Your task to perform on an android device: Open the web browser Image 0: 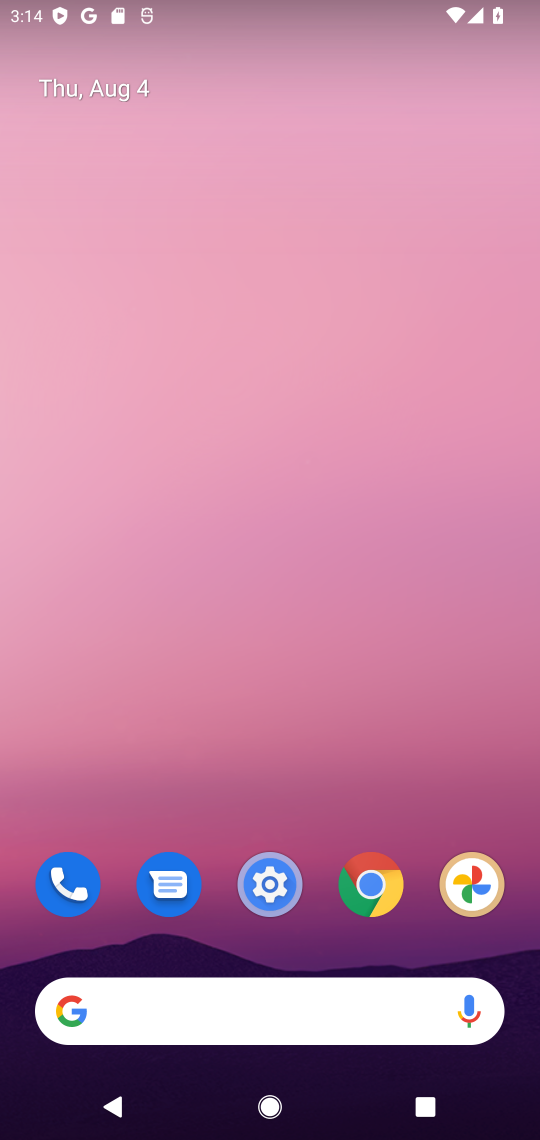
Step 0: drag from (221, 882) to (234, 393)
Your task to perform on an android device: Open the web browser Image 1: 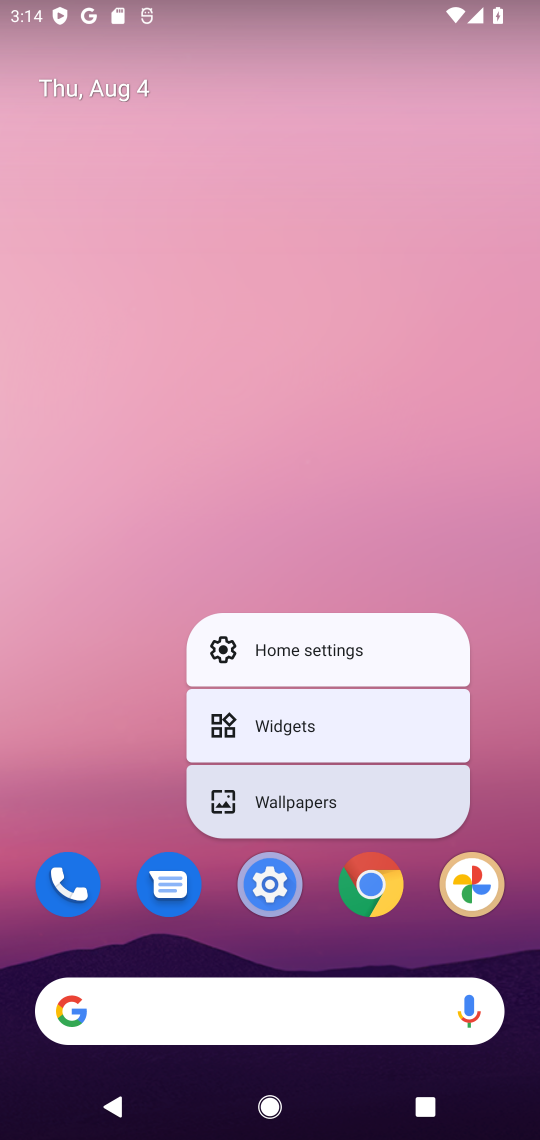
Step 1: click (264, 646)
Your task to perform on an android device: Open the web browser Image 2: 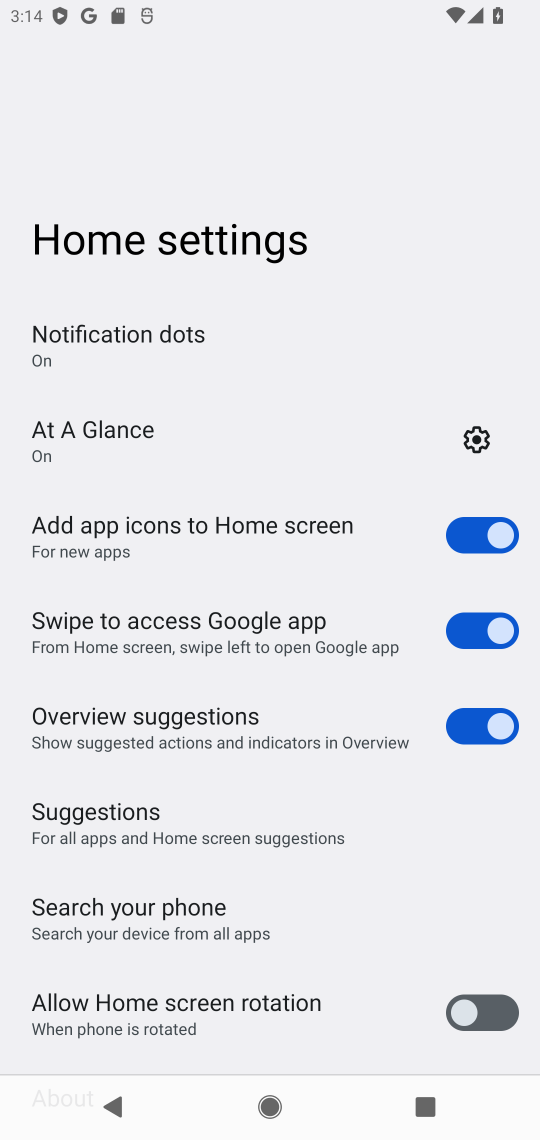
Step 2: drag from (220, 885) to (233, 444)
Your task to perform on an android device: Open the web browser Image 3: 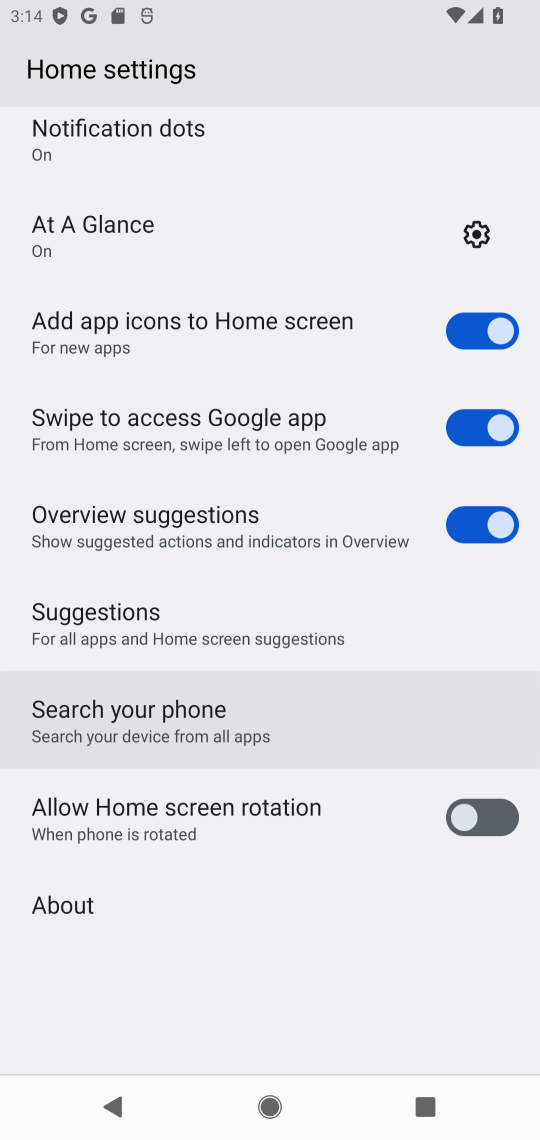
Step 3: drag from (254, 367) to (533, 803)
Your task to perform on an android device: Open the web browser Image 4: 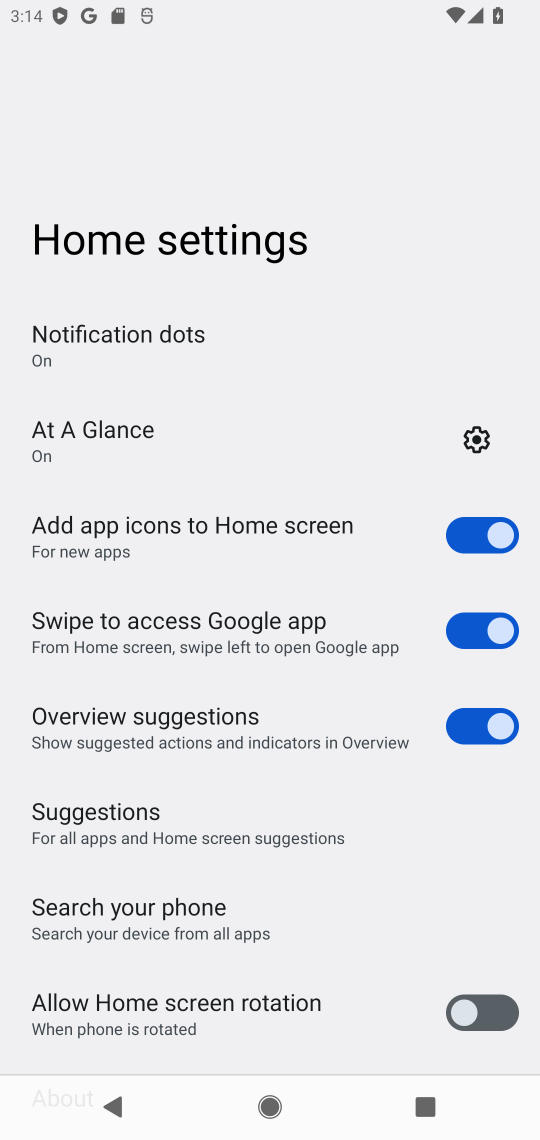
Step 4: drag from (243, 892) to (352, 386)
Your task to perform on an android device: Open the web browser Image 5: 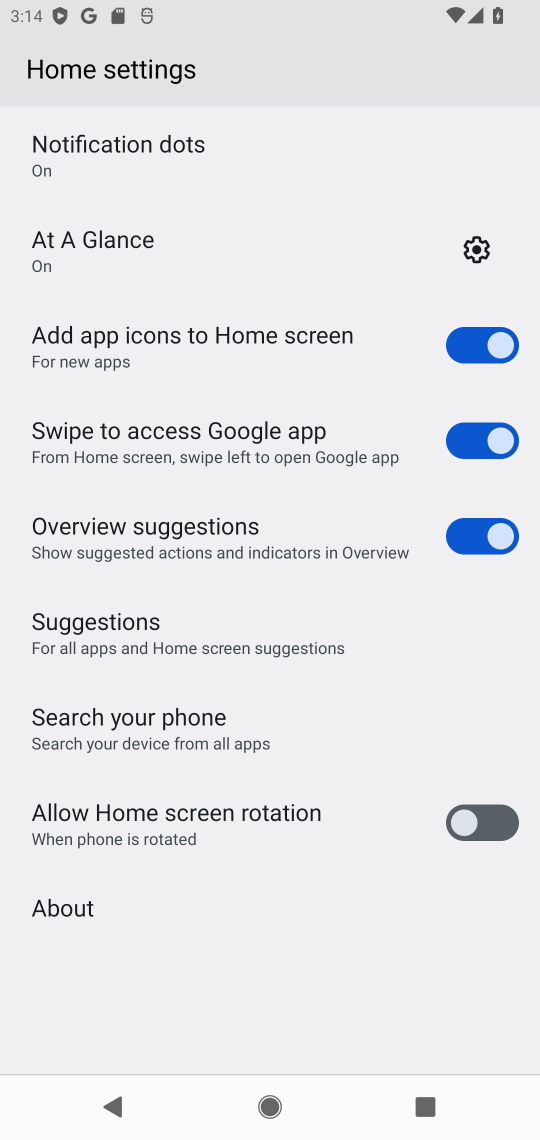
Step 5: drag from (271, 247) to (284, 1136)
Your task to perform on an android device: Open the web browser Image 6: 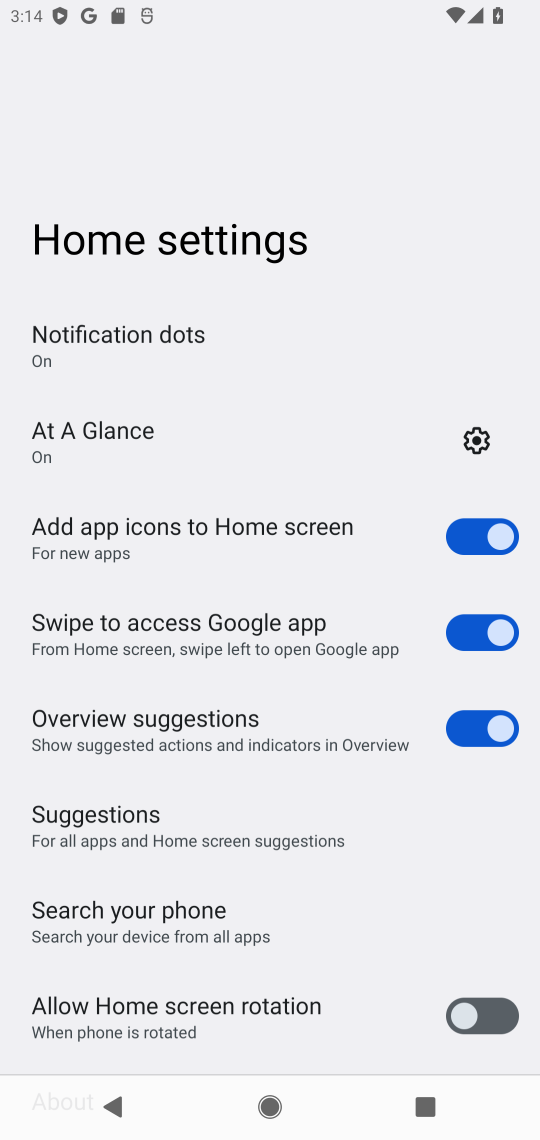
Step 6: drag from (213, 1025) to (186, 481)
Your task to perform on an android device: Open the web browser Image 7: 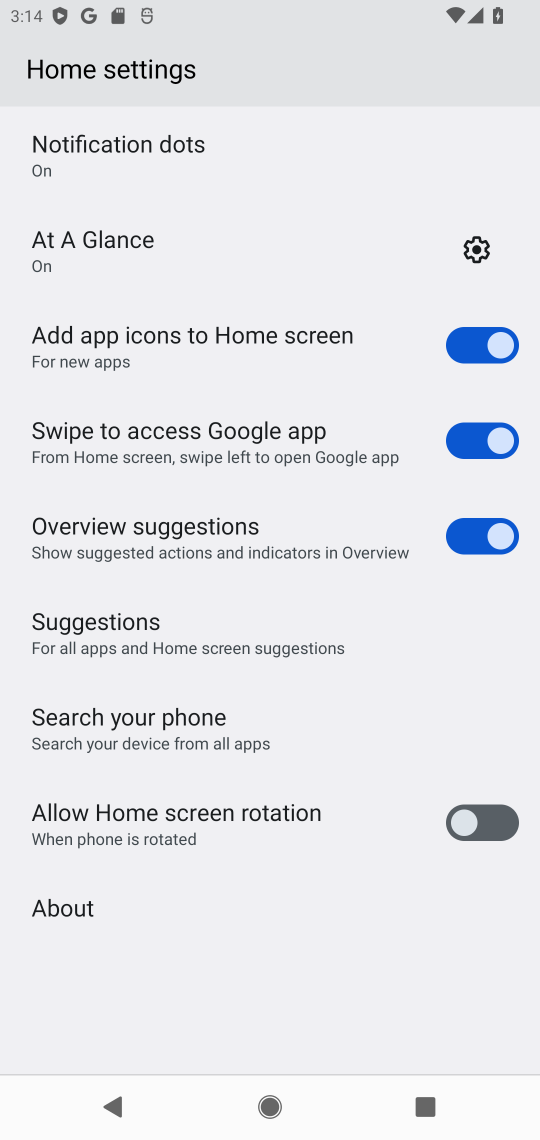
Step 7: drag from (259, 293) to (178, 1078)
Your task to perform on an android device: Open the web browser Image 8: 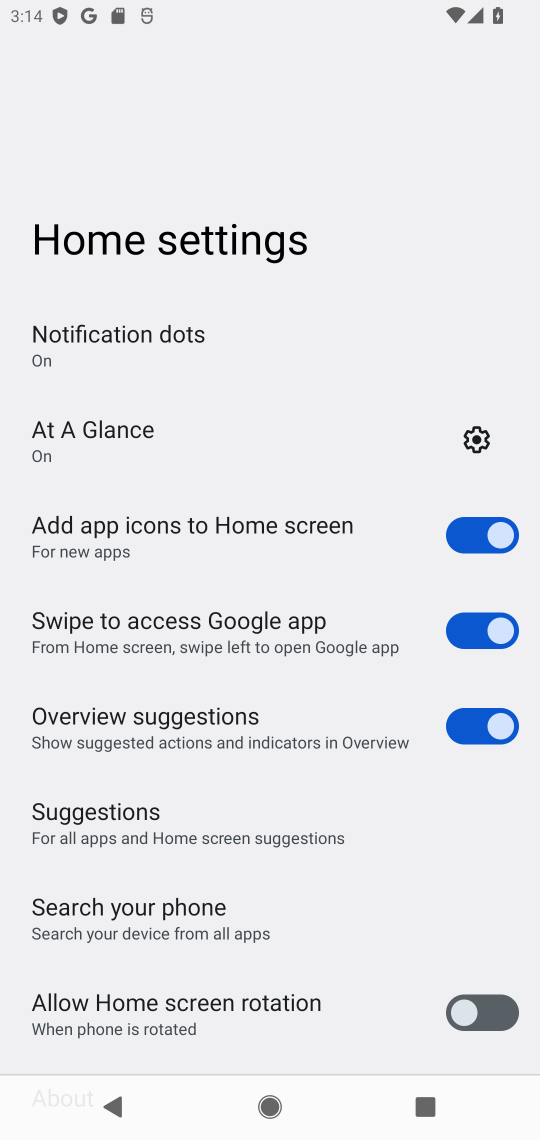
Step 8: drag from (223, 994) to (333, 606)
Your task to perform on an android device: Open the web browser Image 9: 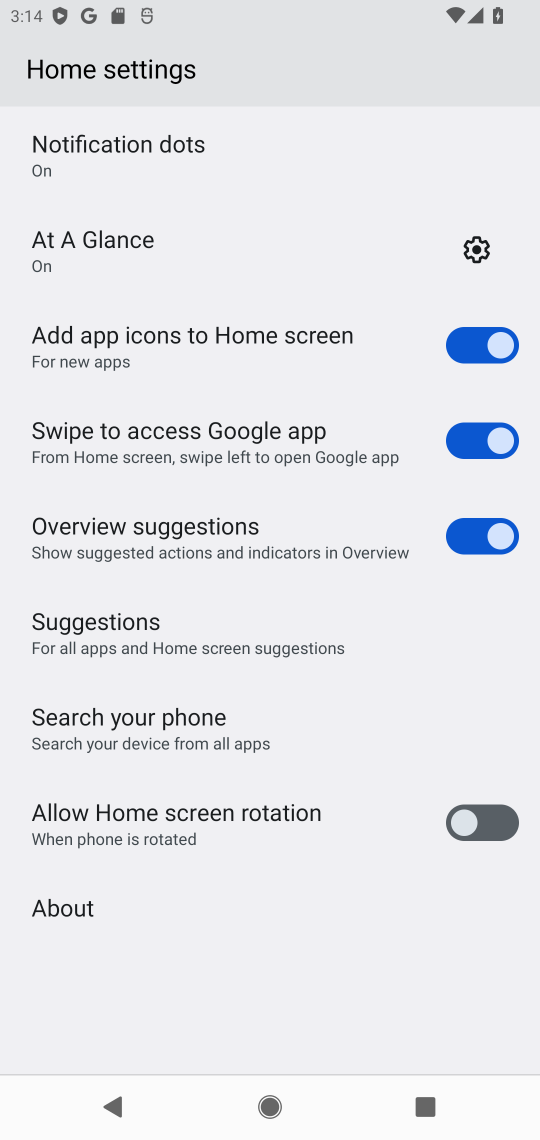
Step 9: drag from (250, 274) to (329, 1128)
Your task to perform on an android device: Open the web browser Image 10: 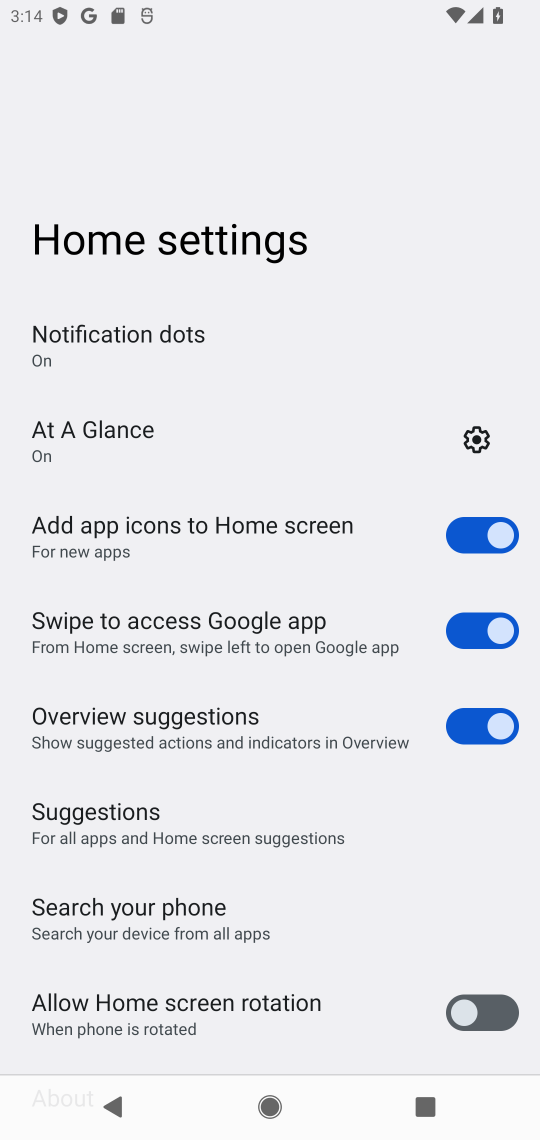
Step 10: drag from (292, 880) to (366, 410)
Your task to perform on an android device: Open the web browser Image 11: 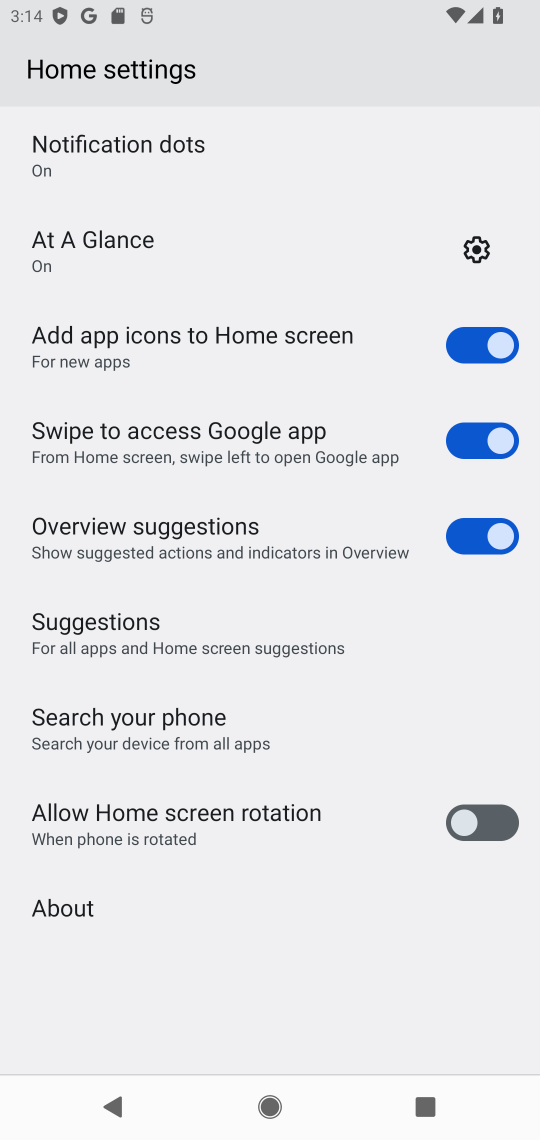
Step 11: drag from (333, 404) to (320, 1138)
Your task to perform on an android device: Open the web browser Image 12: 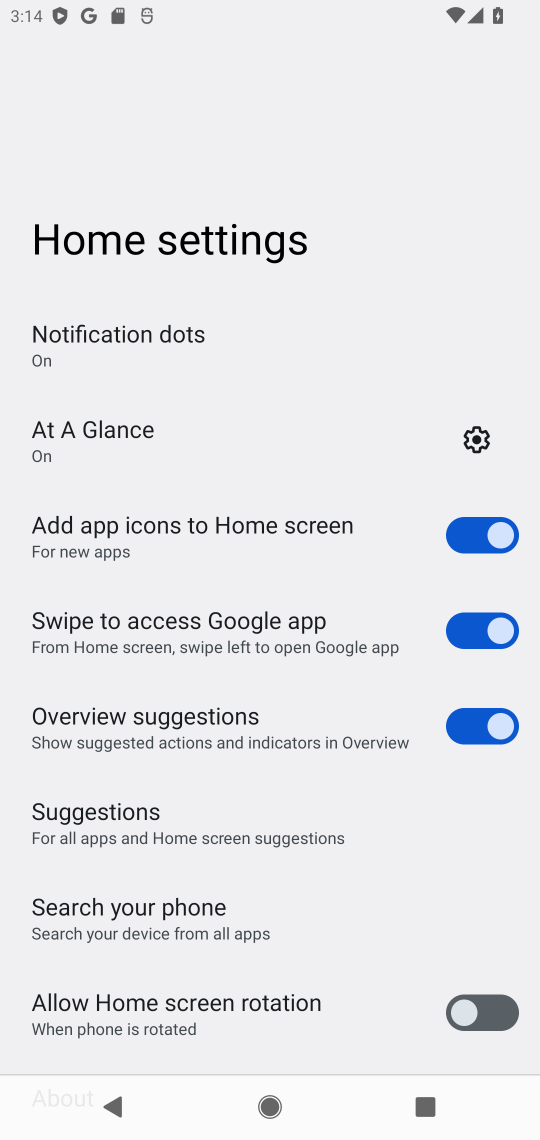
Step 12: drag from (307, 909) to (423, 560)
Your task to perform on an android device: Open the web browser Image 13: 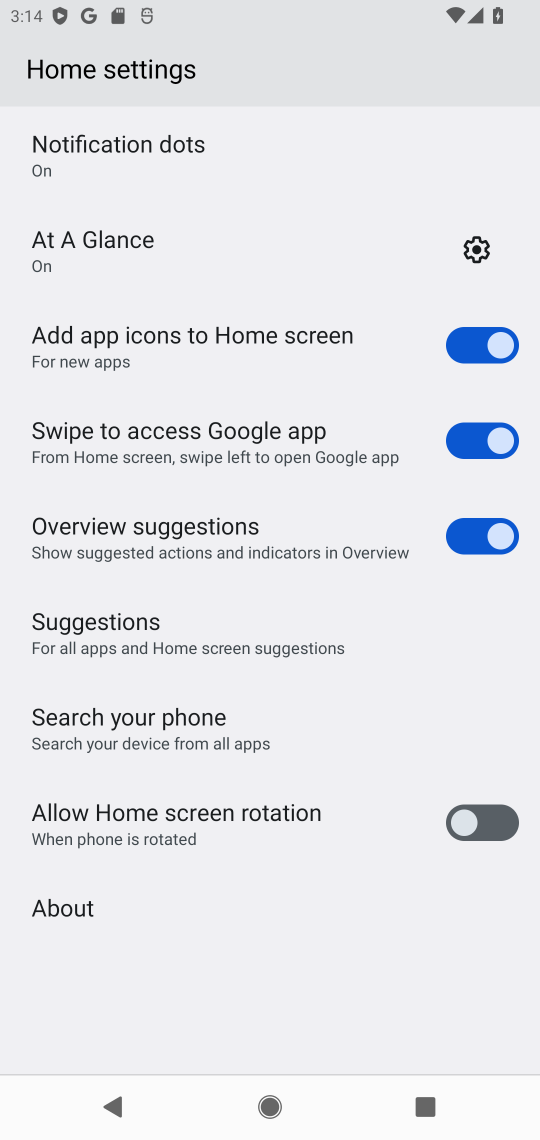
Step 13: drag from (300, 845) to (335, 325)
Your task to perform on an android device: Open the web browser Image 14: 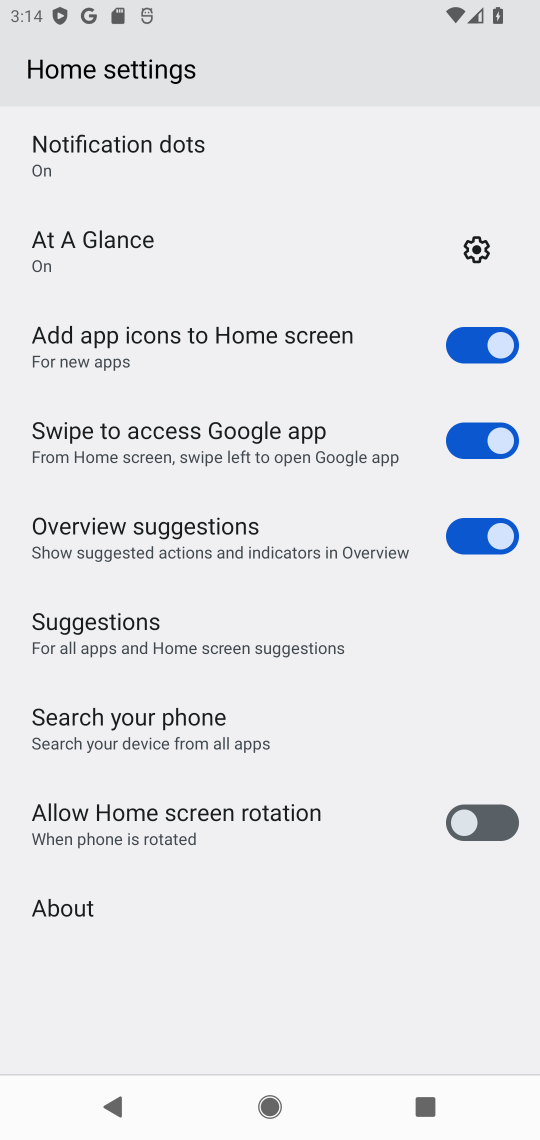
Step 14: drag from (195, 361) to (354, 1104)
Your task to perform on an android device: Open the web browser Image 15: 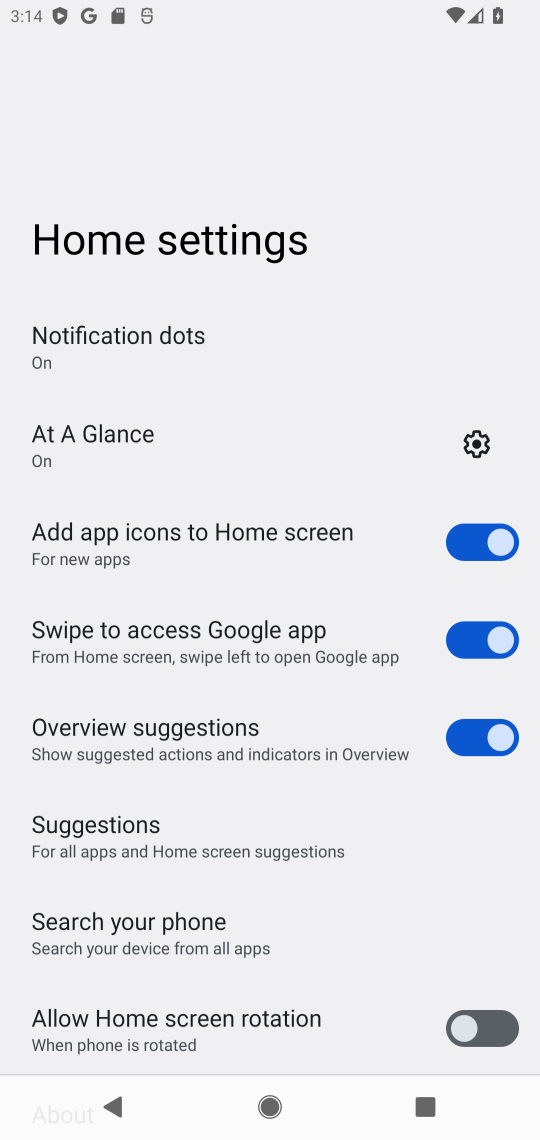
Step 15: press home button
Your task to perform on an android device: Open the web browser Image 16: 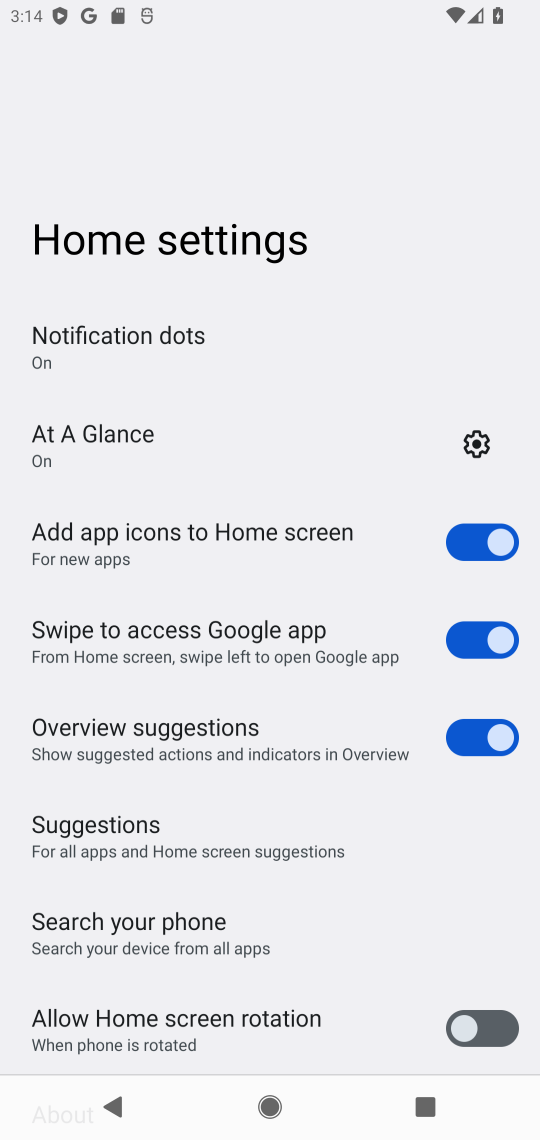
Step 16: drag from (354, 1104) to (538, 476)
Your task to perform on an android device: Open the web browser Image 17: 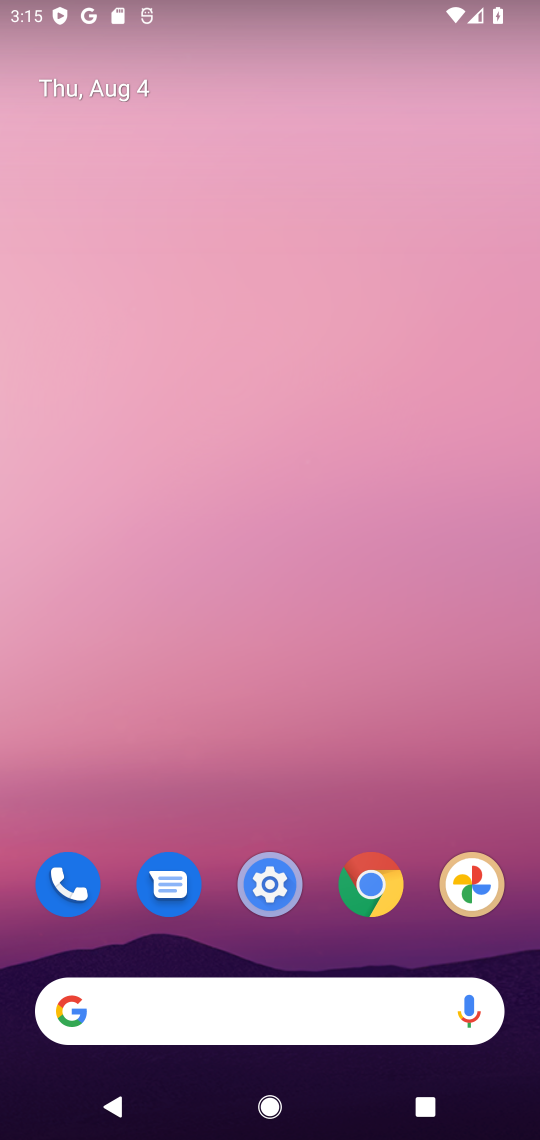
Step 17: drag from (218, 922) to (296, 441)
Your task to perform on an android device: Open the web browser Image 18: 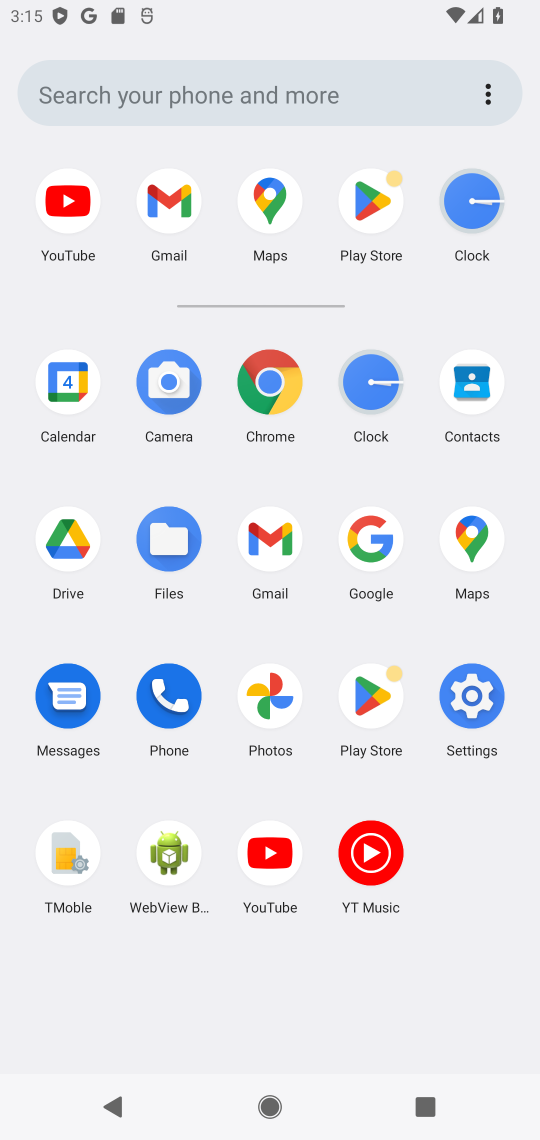
Step 18: click (228, 96)
Your task to perform on an android device: Open the web browser Image 19: 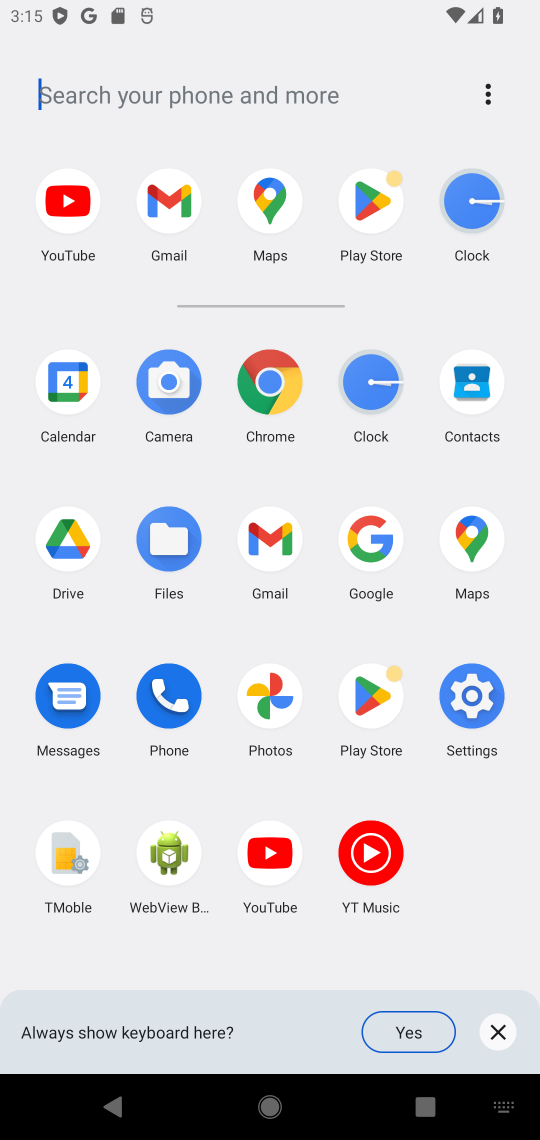
Step 19: click (88, 85)
Your task to perform on an android device: Open the web browser Image 20: 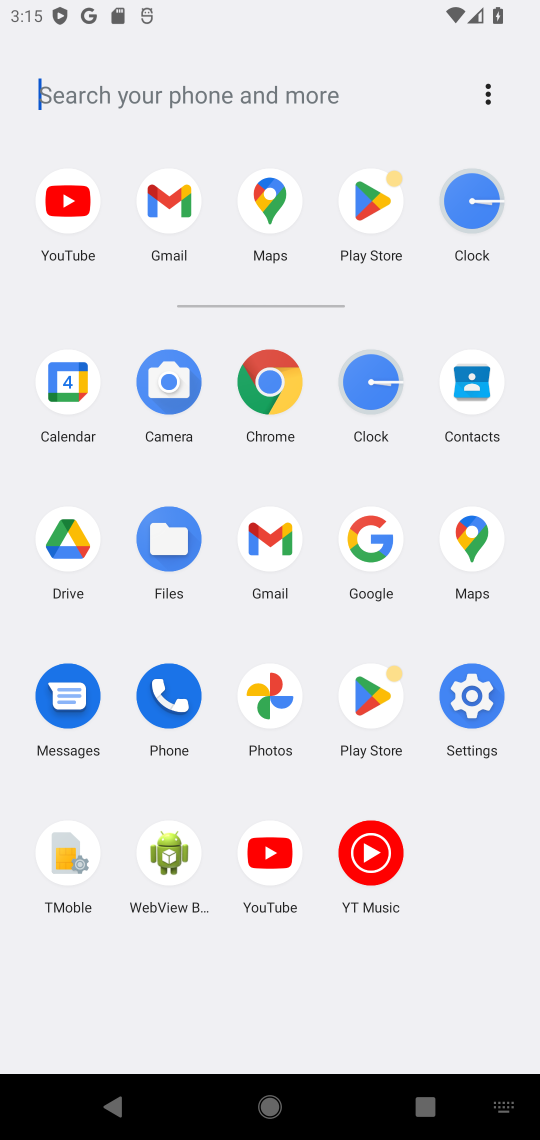
Step 20: type " web browser"
Your task to perform on an android device: Open the web browser Image 21: 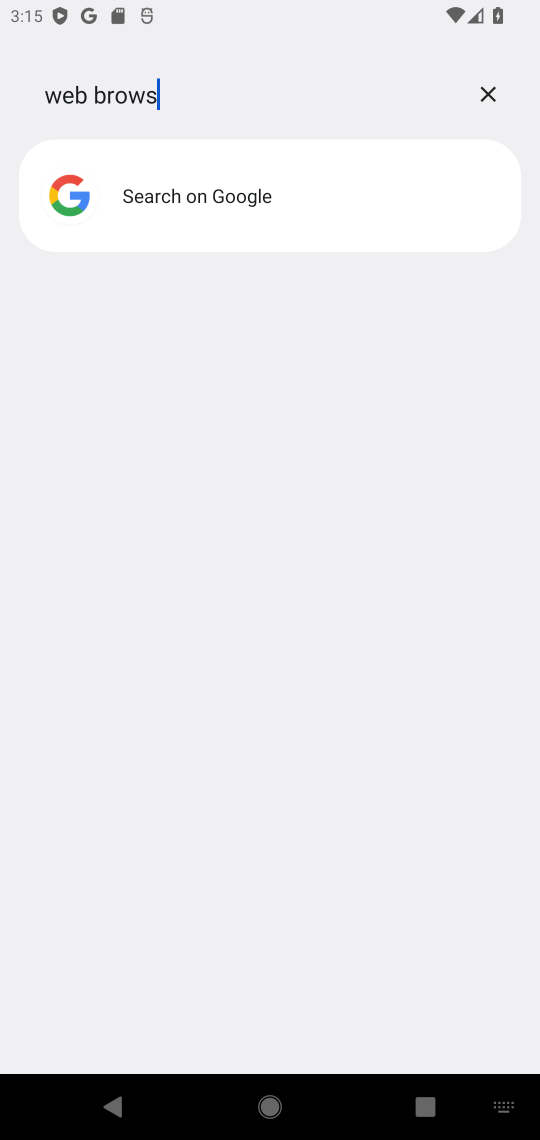
Step 21: type ""
Your task to perform on an android device: Open the web browser Image 22: 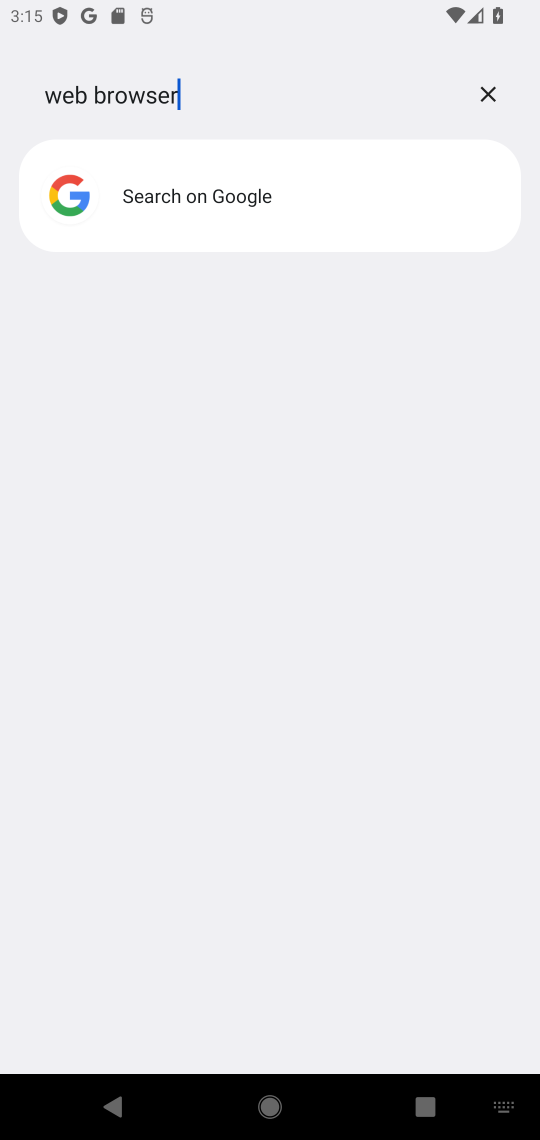
Step 22: click (183, 200)
Your task to perform on an android device: Open the web browser Image 23: 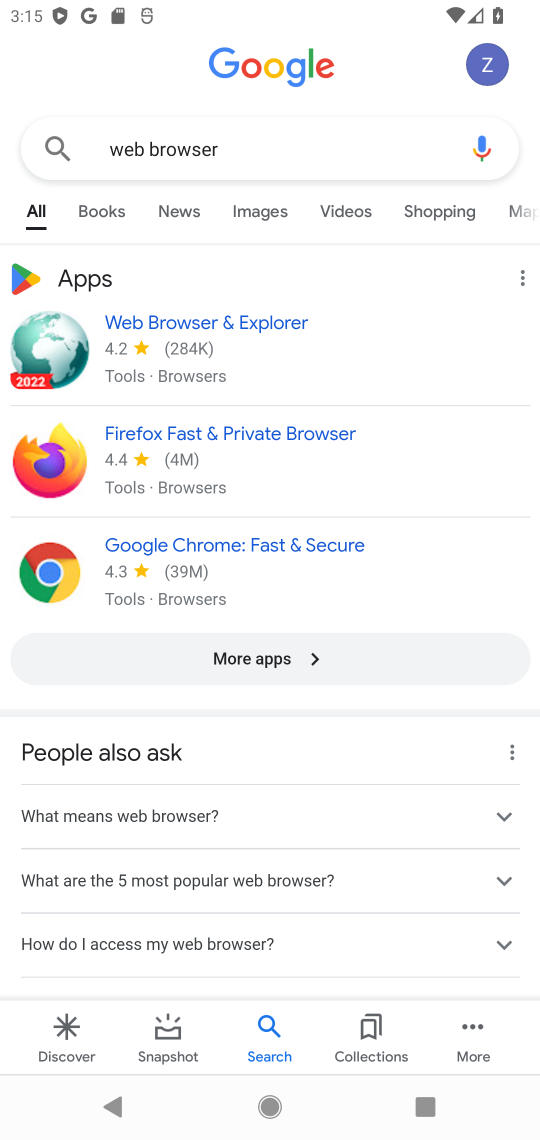
Step 23: task complete